Your task to perform on an android device: Go to Amazon Image 0: 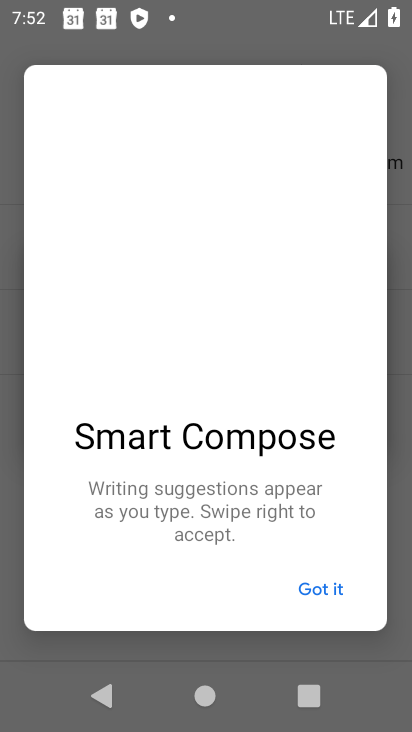
Step 0: click (218, 60)
Your task to perform on an android device: Go to Amazon Image 1: 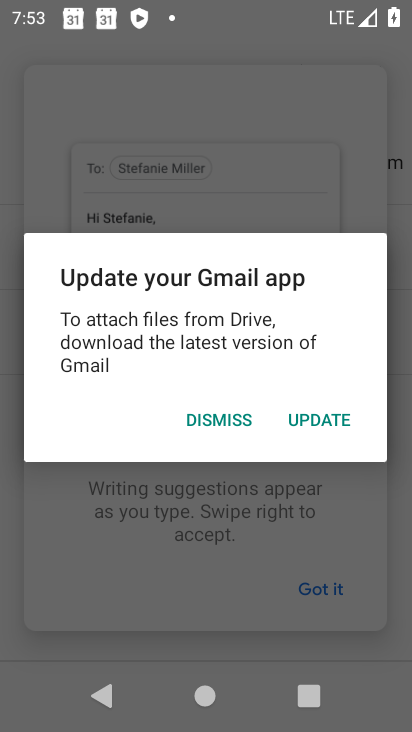
Step 1: press home button
Your task to perform on an android device: Go to Amazon Image 2: 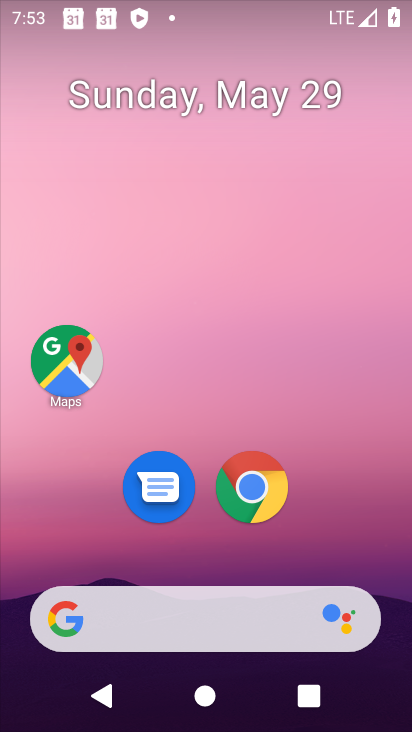
Step 2: click (271, 510)
Your task to perform on an android device: Go to Amazon Image 3: 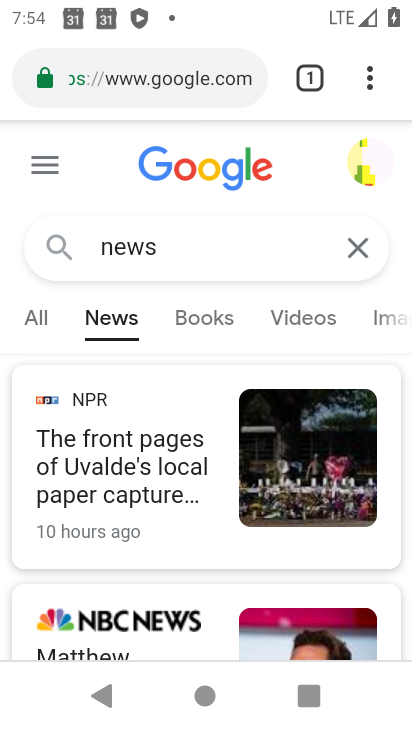
Step 3: click (220, 78)
Your task to perform on an android device: Go to Amazon Image 4: 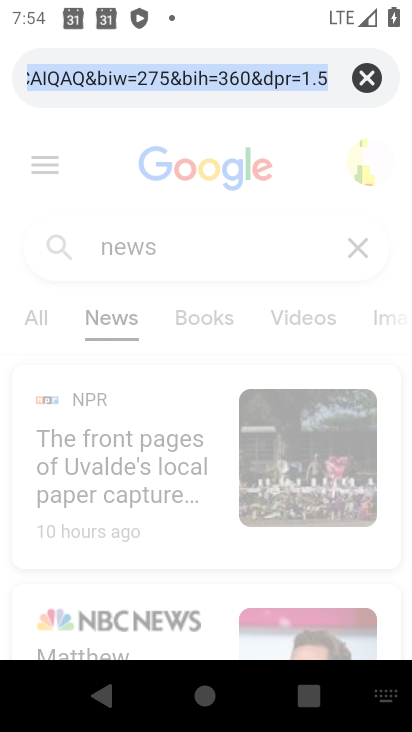
Step 4: type "amazon"
Your task to perform on an android device: Go to Amazon Image 5: 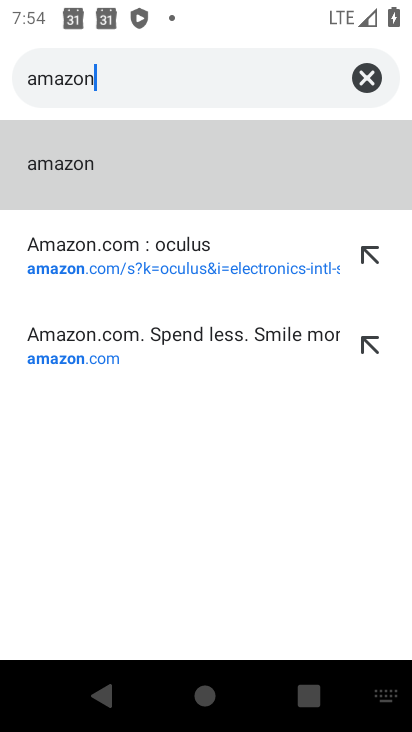
Step 5: click (245, 243)
Your task to perform on an android device: Go to Amazon Image 6: 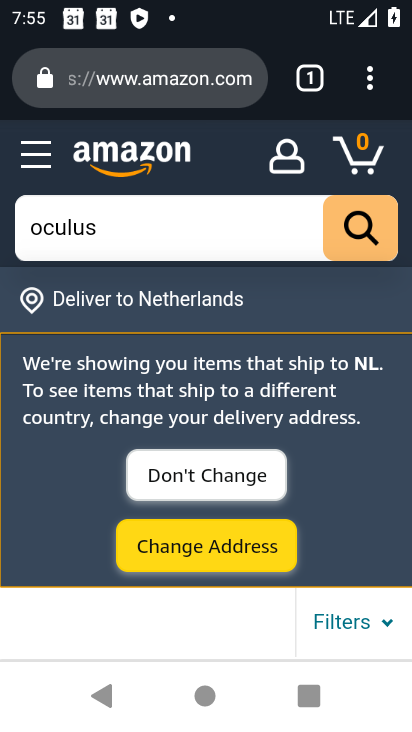
Step 6: task complete